Your task to perform on an android device: What's on my calendar tomorrow? Image 0: 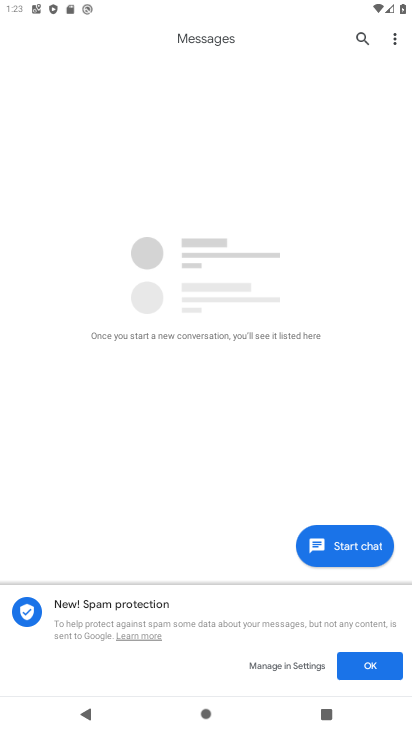
Step 0: press home button
Your task to perform on an android device: What's on my calendar tomorrow? Image 1: 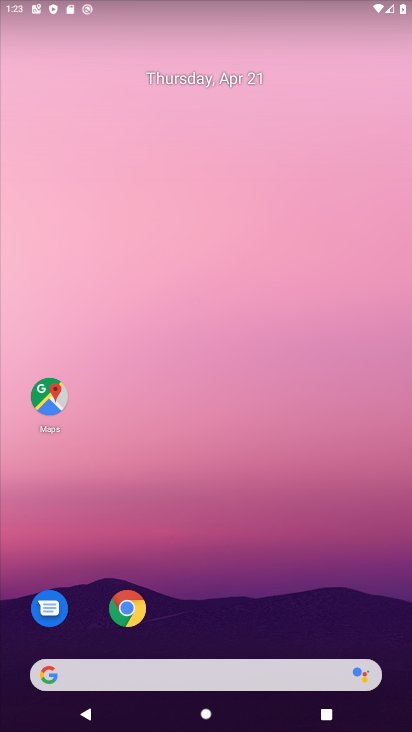
Step 1: drag from (320, 568) to (356, 87)
Your task to perform on an android device: What's on my calendar tomorrow? Image 2: 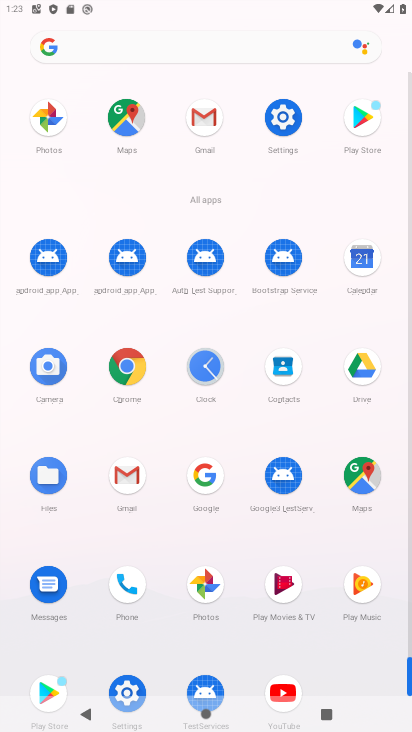
Step 2: click (359, 269)
Your task to perform on an android device: What's on my calendar tomorrow? Image 3: 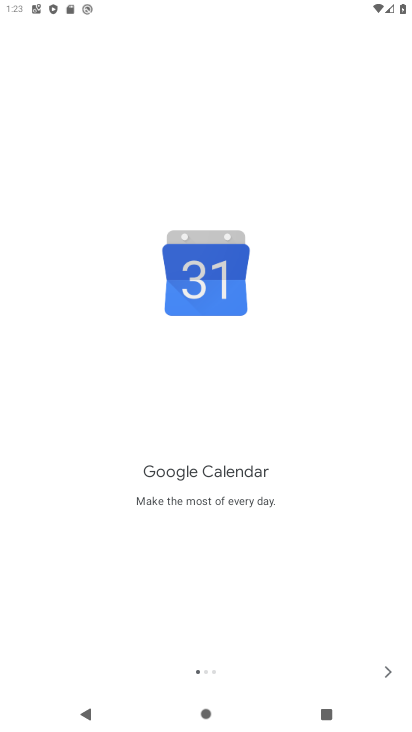
Step 3: click (385, 668)
Your task to perform on an android device: What's on my calendar tomorrow? Image 4: 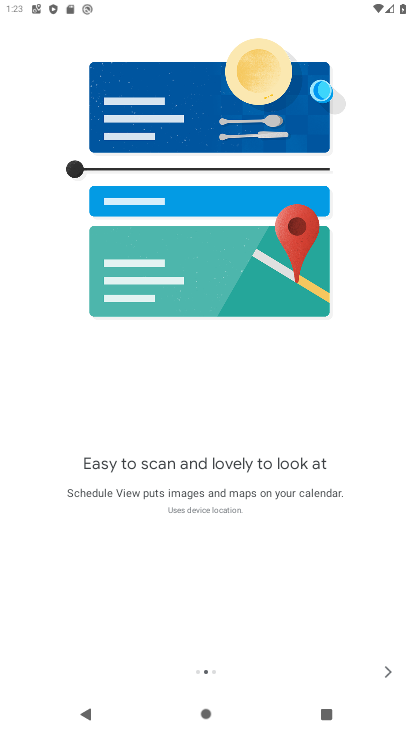
Step 4: click (385, 673)
Your task to perform on an android device: What's on my calendar tomorrow? Image 5: 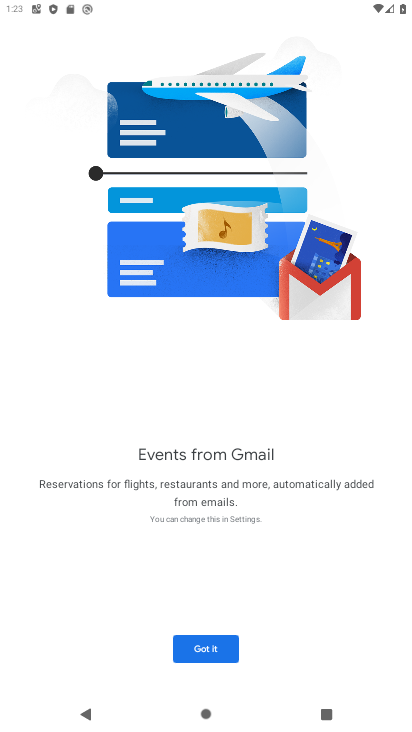
Step 5: click (213, 648)
Your task to perform on an android device: What's on my calendar tomorrow? Image 6: 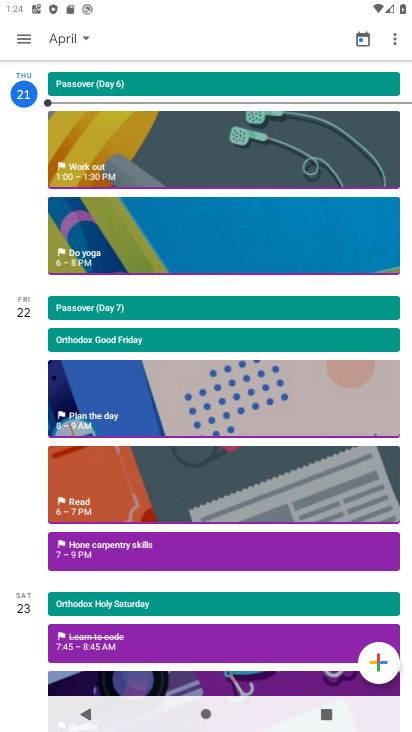
Step 6: click (68, 40)
Your task to perform on an android device: What's on my calendar tomorrow? Image 7: 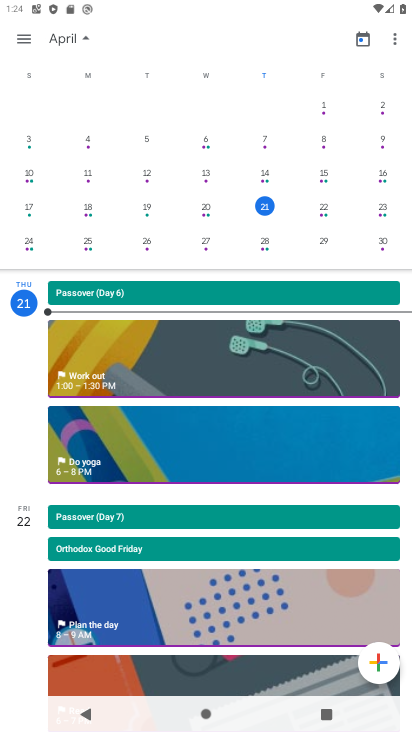
Step 7: click (326, 215)
Your task to perform on an android device: What's on my calendar tomorrow? Image 8: 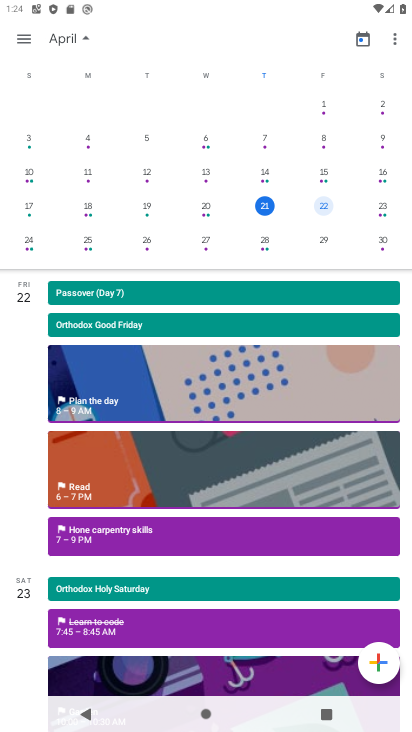
Step 8: task complete